Your task to perform on an android device: Show me popular videos on Youtube Image 0: 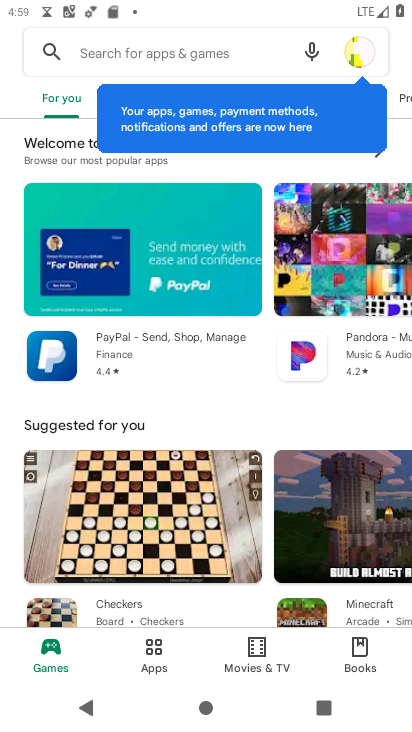
Step 0: press back button
Your task to perform on an android device: Show me popular videos on Youtube Image 1: 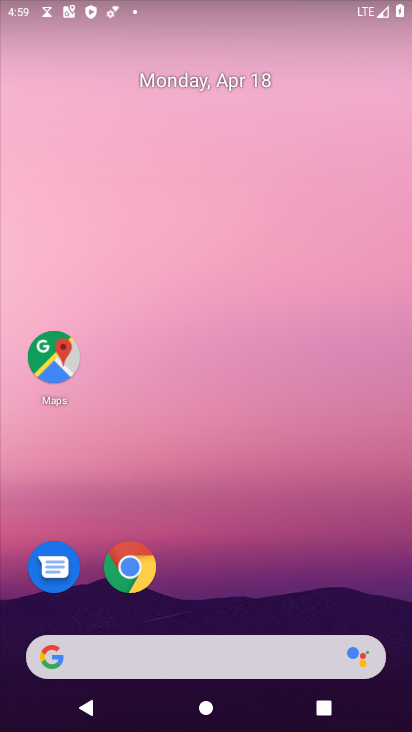
Step 1: drag from (291, 568) to (377, 104)
Your task to perform on an android device: Show me popular videos on Youtube Image 2: 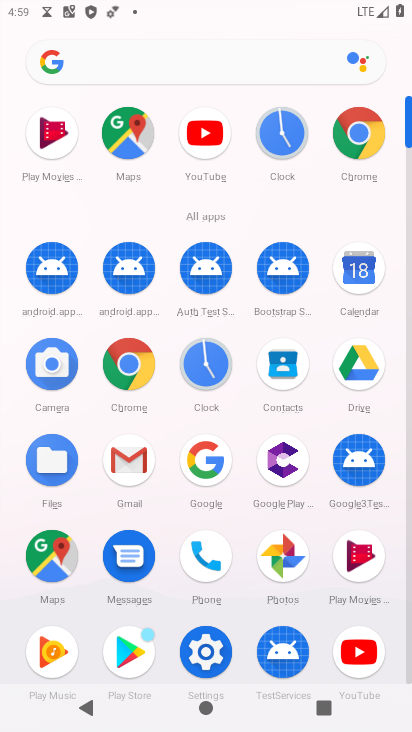
Step 2: click (213, 136)
Your task to perform on an android device: Show me popular videos on Youtube Image 3: 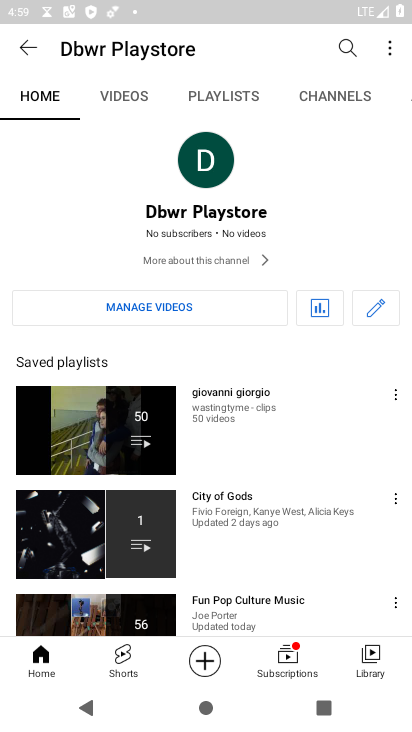
Step 3: press back button
Your task to perform on an android device: Show me popular videos on Youtube Image 4: 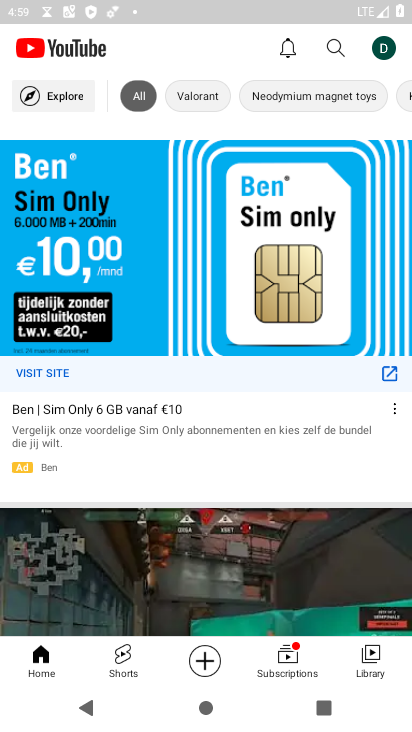
Step 4: click (46, 94)
Your task to perform on an android device: Show me popular videos on Youtube Image 5: 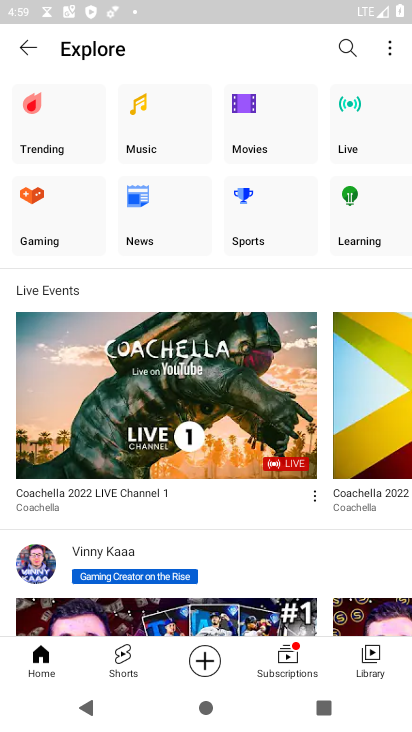
Step 5: click (43, 106)
Your task to perform on an android device: Show me popular videos on Youtube Image 6: 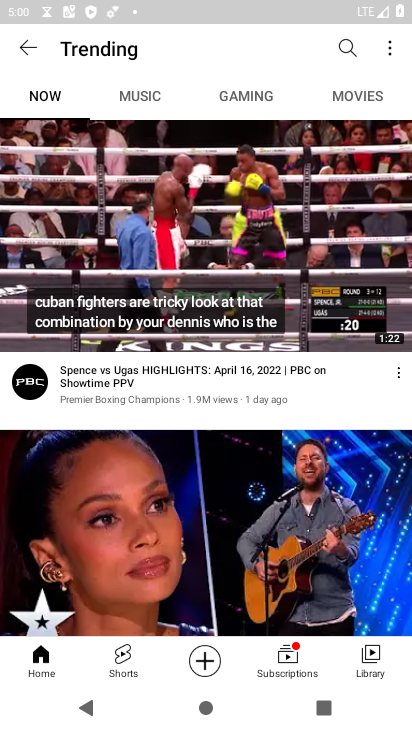
Step 6: task complete